Your task to perform on an android device: Open Chrome and go to settings Image 0: 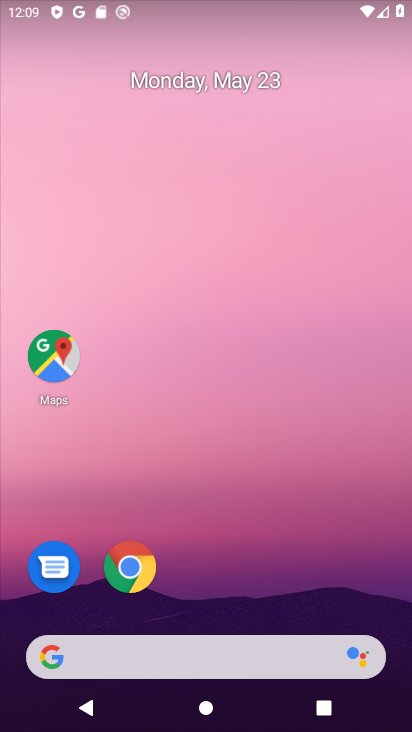
Step 0: click (136, 558)
Your task to perform on an android device: Open Chrome and go to settings Image 1: 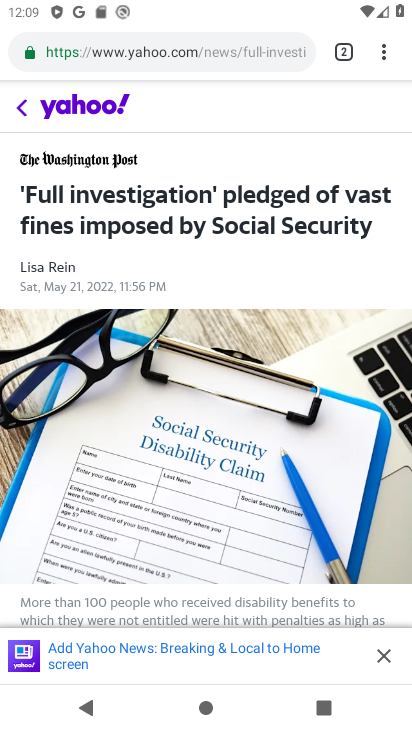
Step 1: click (376, 56)
Your task to perform on an android device: Open Chrome and go to settings Image 2: 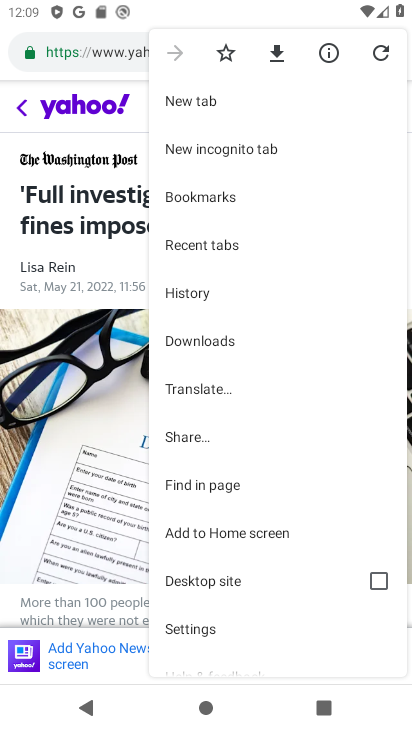
Step 2: click (203, 616)
Your task to perform on an android device: Open Chrome and go to settings Image 3: 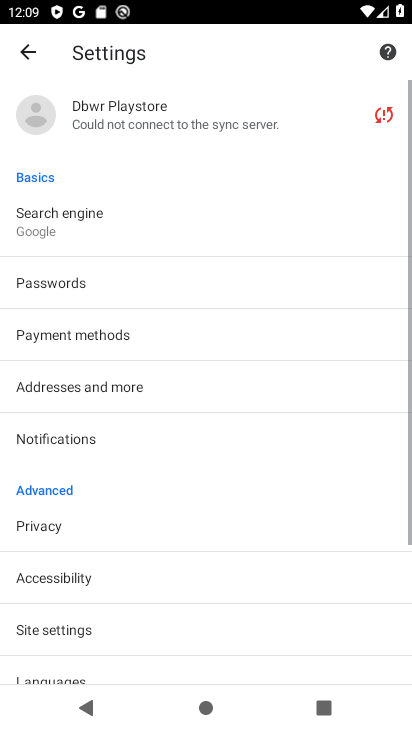
Step 3: task complete